Your task to perform on an android device: Open Google Chrome and click the shortcut for Amazon.com Image 0: 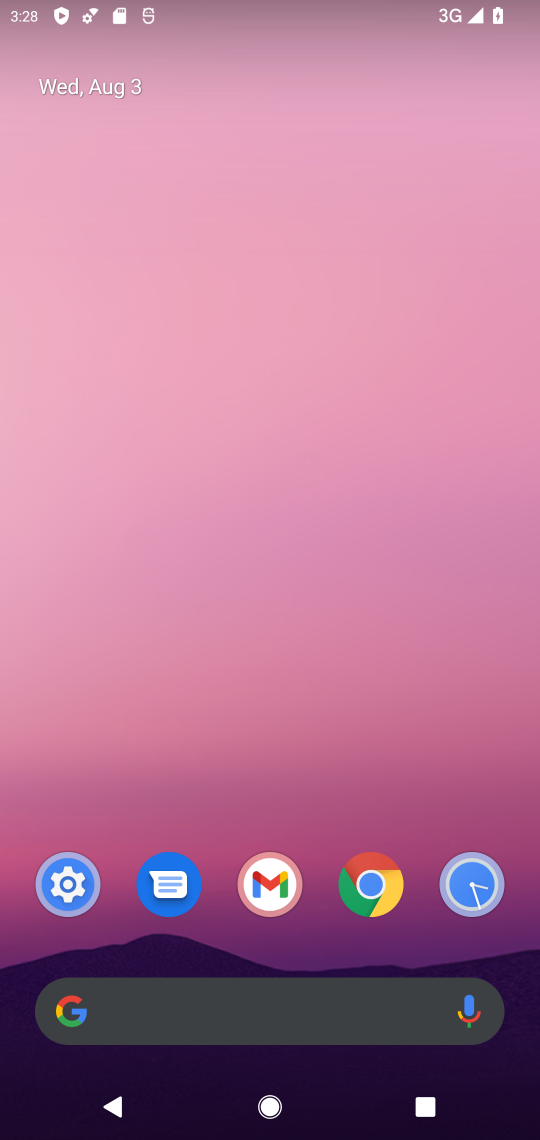
Step 0: click (377, 911)
Your task to perform on an android device: Open Google Chrome and click the shortcut for Amazon.com Image 1: 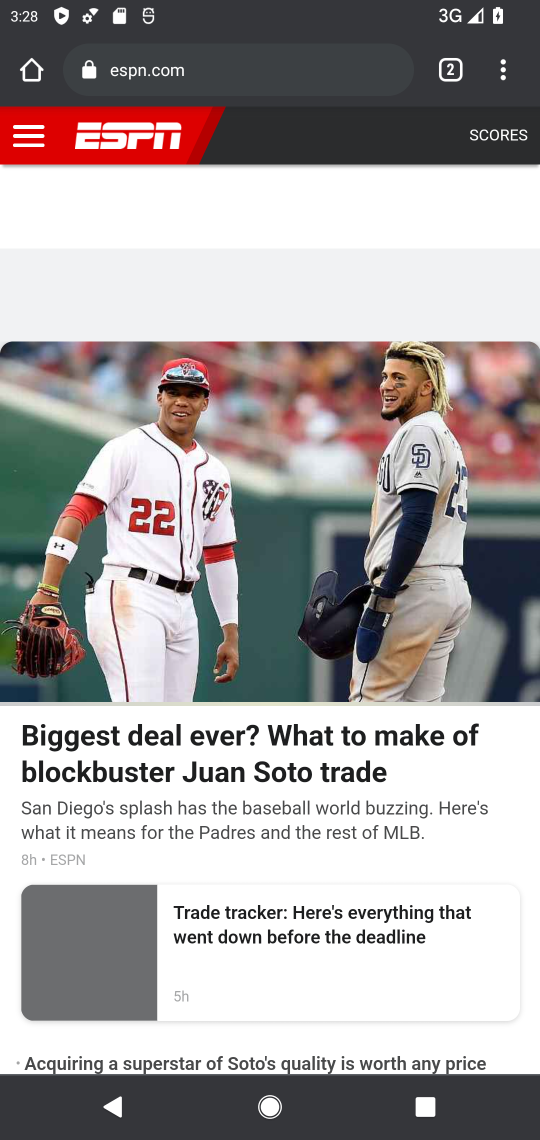
Step 1: click (31, 60)
Your task to perform on an android device: Open Google Chrome and click the shortcut for Amazon.com Image 2: 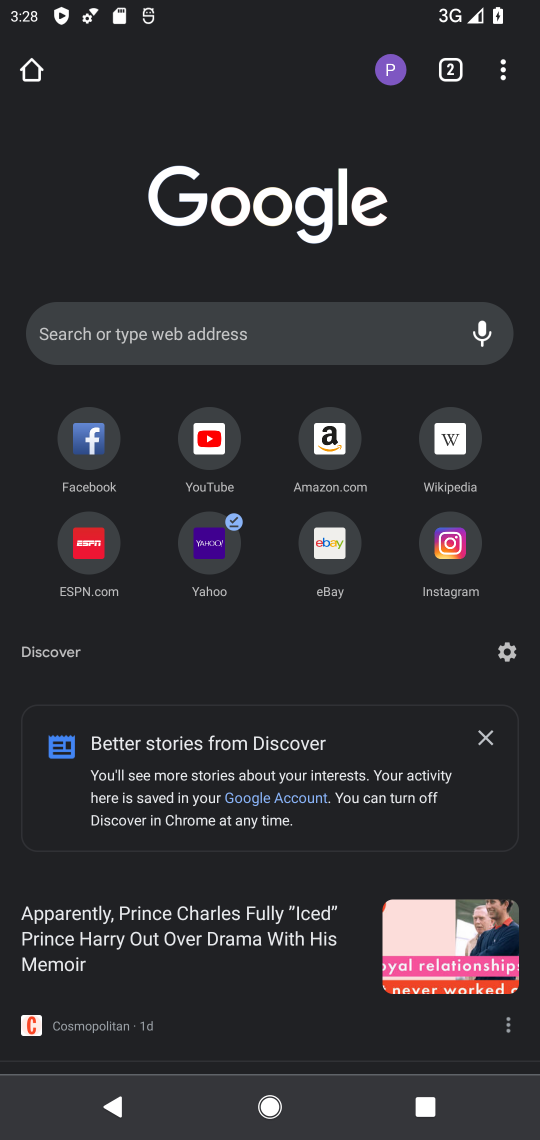
Step 2: click (235, 447)
Your task to perform on an android device: Open Google Chrome and click the shortcut for Amazon.com Image 3: 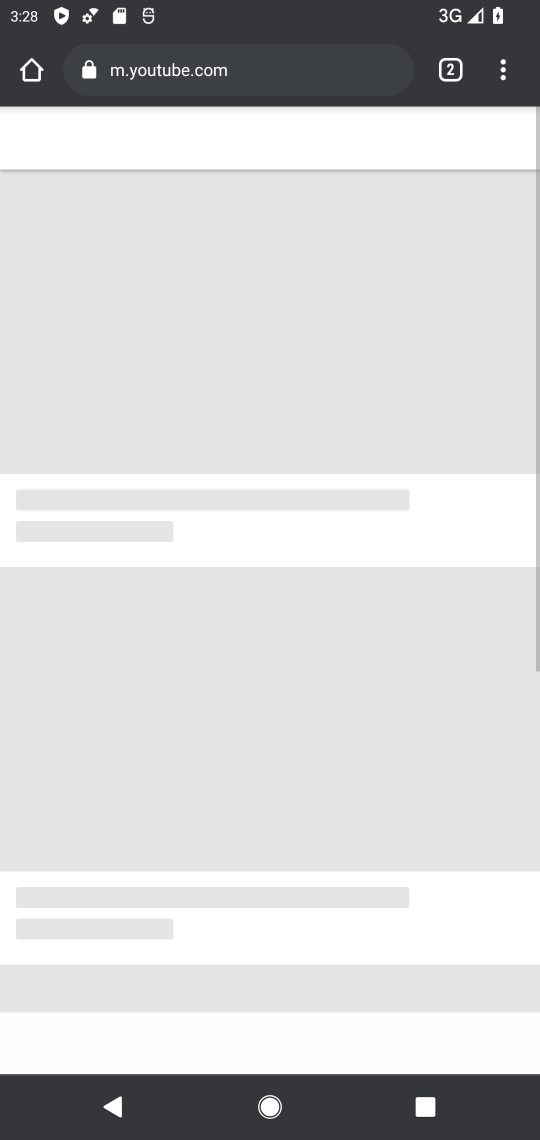
Step 3: task complete